Your task to perform on an android device: find photos in the google photos app Image 0: 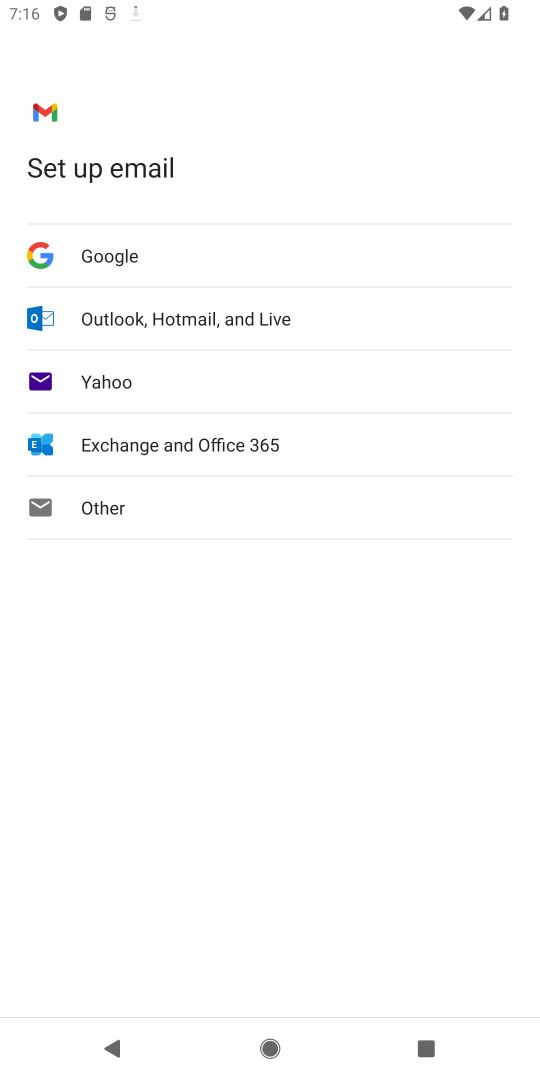
Step 0: press home button
Your task to perform on an android device: find photos in the google photos app Image 1: 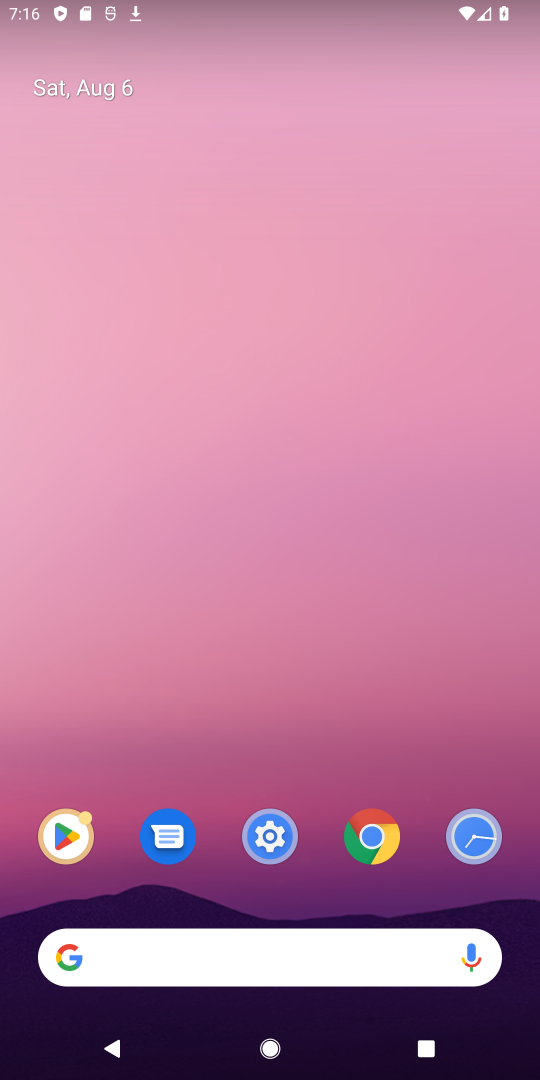
Step 1: drag from (251, 939) to (228, 308)
Your task to perform on an android device: find photos in the google photos app Image 2: 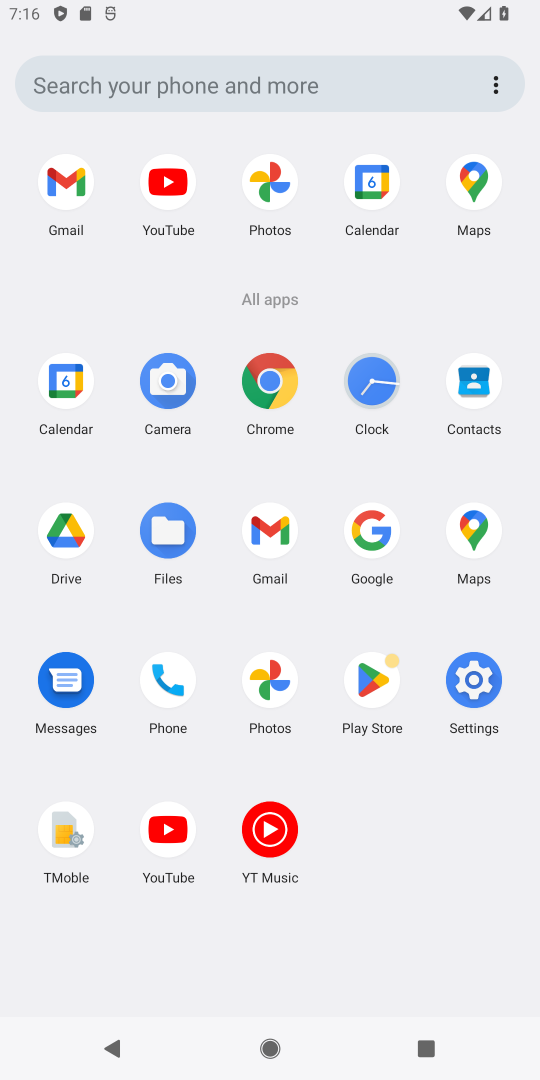
Step 2: click (265, 174)
Your task to perform on an android device: find photos in the google photos app Image 3: 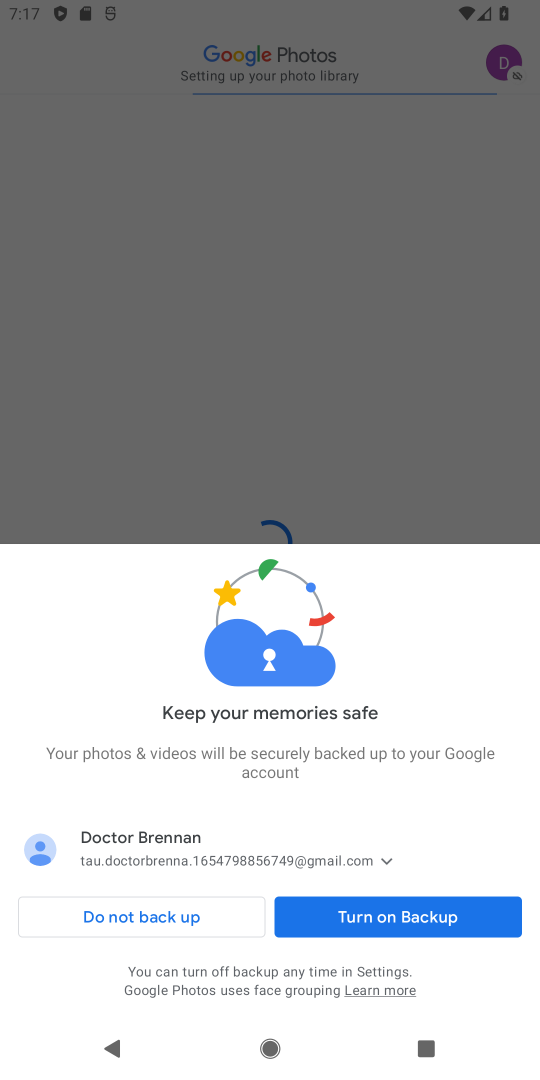
Step 3: click (356, 918)
Your task to perform on an android device: find photos in the google photos app Image 4: 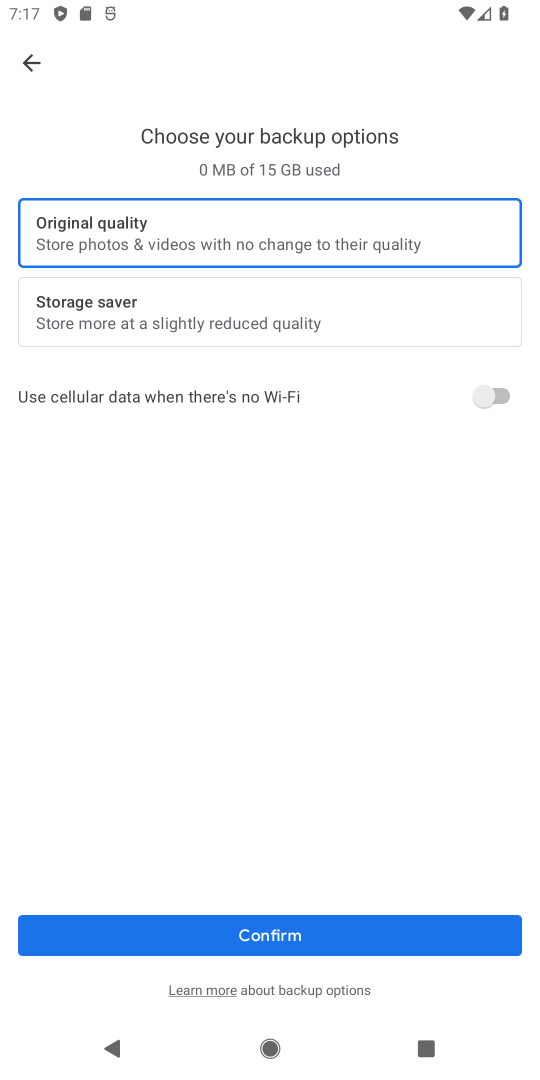
Step 4: click (229, 923)
Your task to perform on an android device: find photos in the google photos app Image 5: 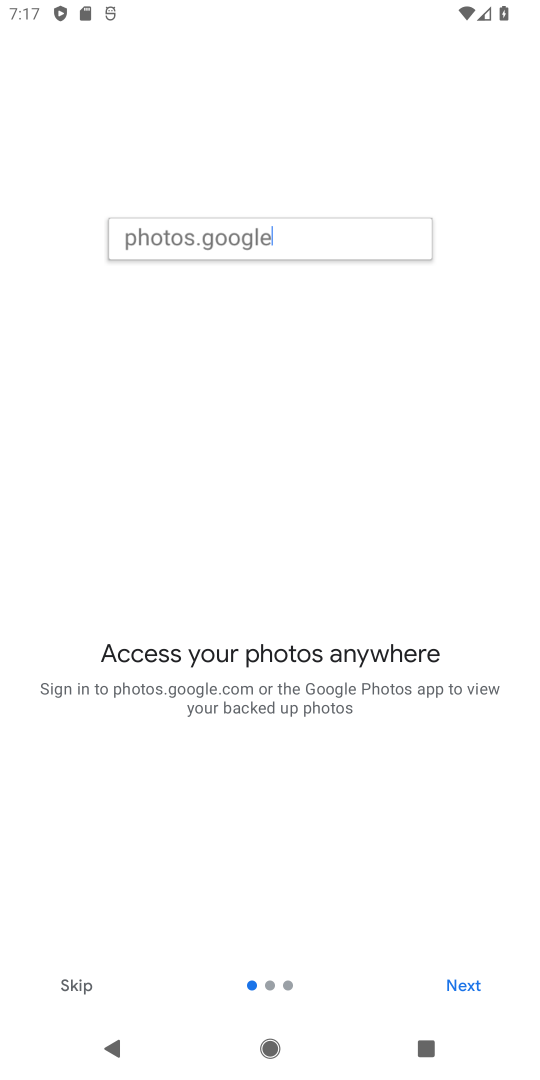
Step 5: click (442, 980)
Your task to perform on an android device: find photos in the google photos app Image 6: 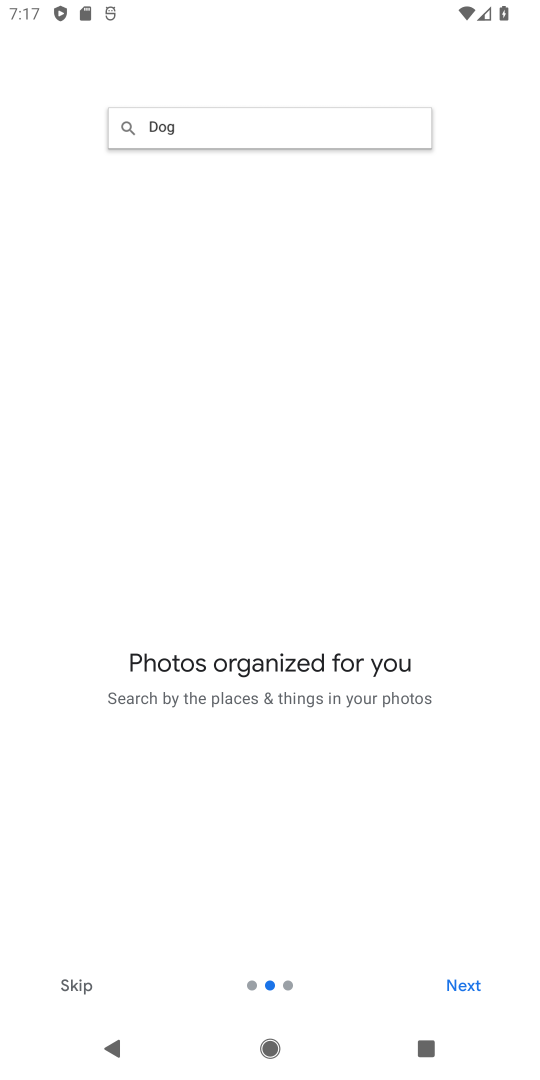
Step 6: click (442, 980)
Your task to perform on an android device: find photos in the google photos app Image 7: 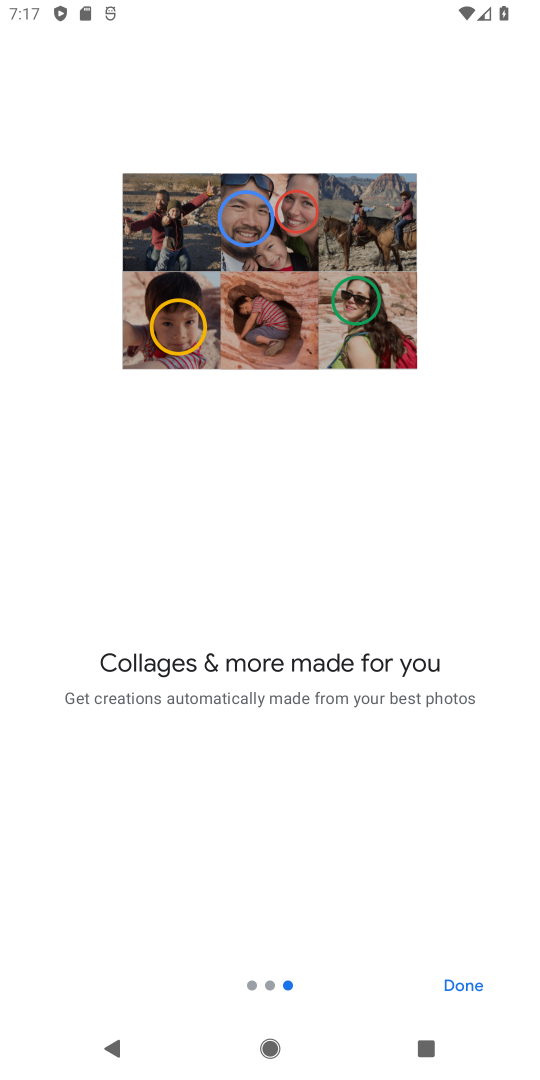
Step 7: click (442, 980)
Your task to perform on an android device: find photos in the google photos app Image 8: 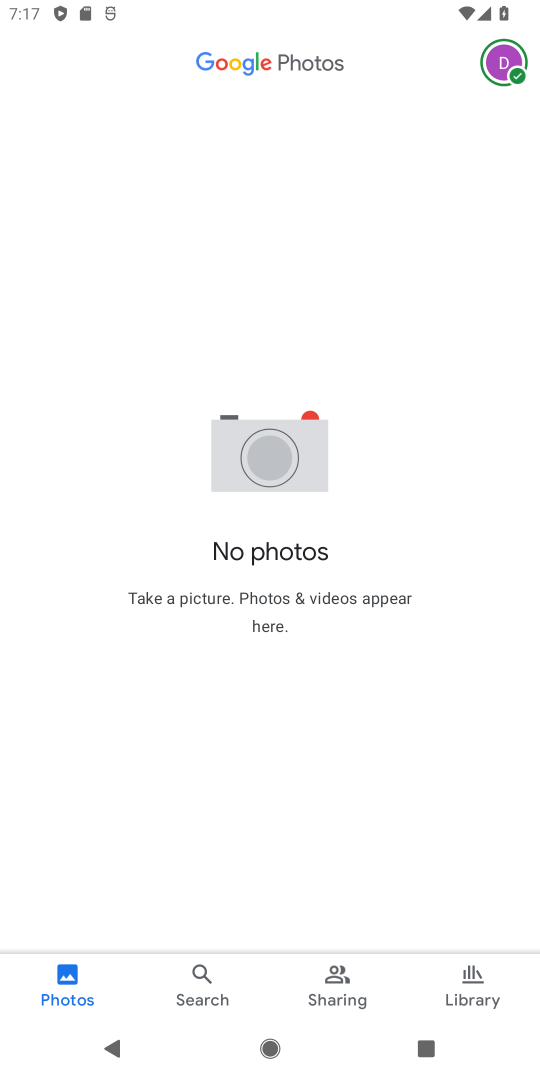
Step 8: task complete